Your task to perform on an android device: Open my contact list Image 0: 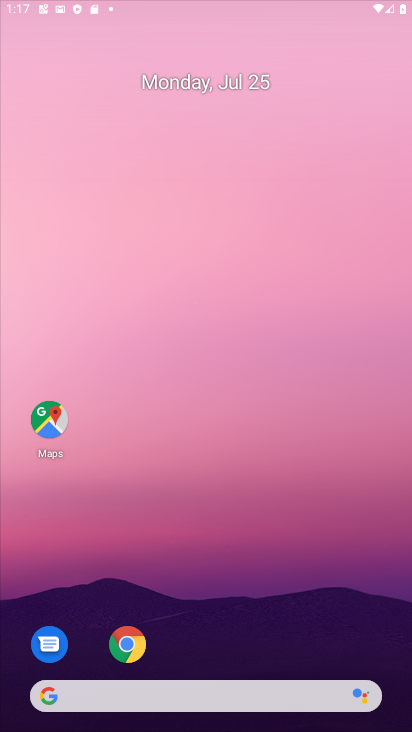
Step 0: drag from (301, 581) to (215, 191)
Your task to perform on an android device: Open my contact list Image 1: 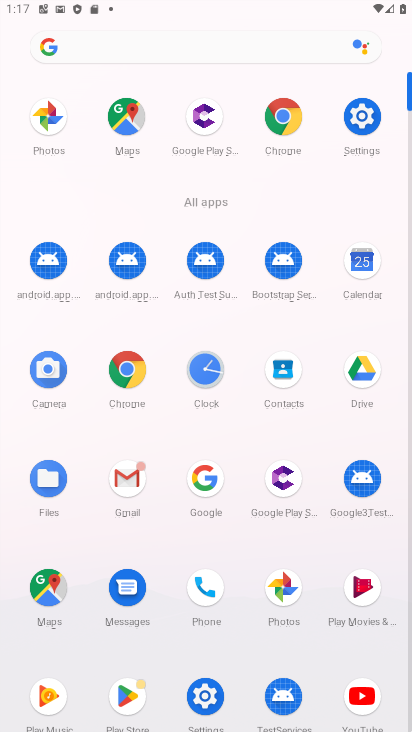
Step 1: click (278, 373)
Your task to perform on an android device: Open my contact list Image 2: 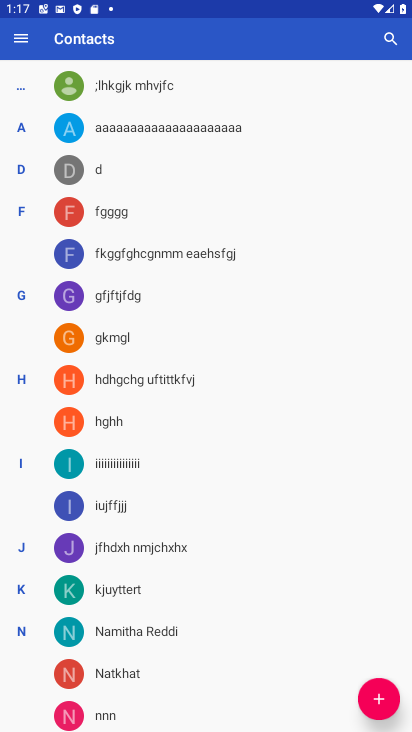
Step 2: task complete